Your task to perform on an android device: move an email to a new category in the gmail app Image 0: 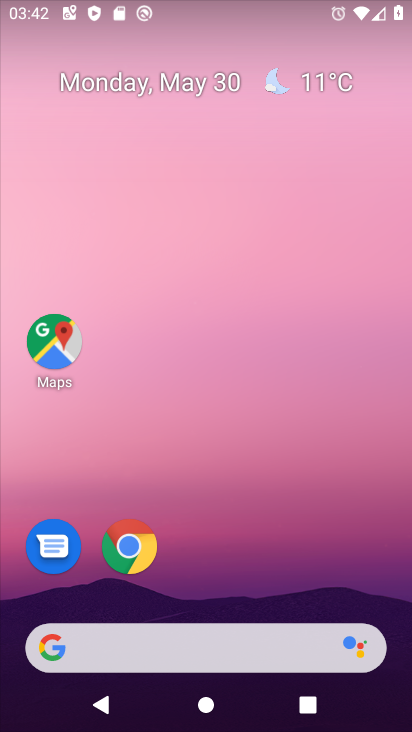
Step 0: press home button
Your task to perform on an android device: move an email to a new category in the gmail app Image 1: 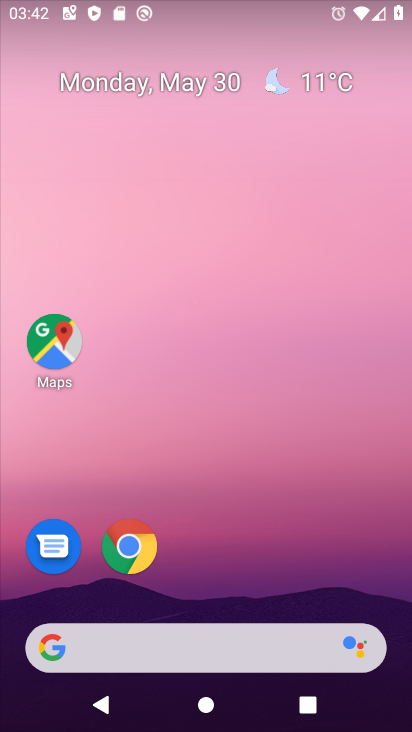
Step 1: drag from (208, 604) to (238, 49)
Your task to perform on an android device: move an email to a new category in the gmail app Image 2: 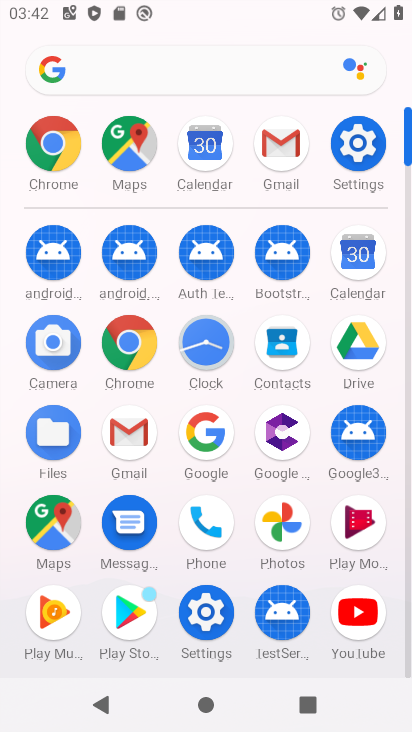
Step 2: click (277, 141)
Your task to perform on an android device: move an email to a new category in the gmail app Image 3: 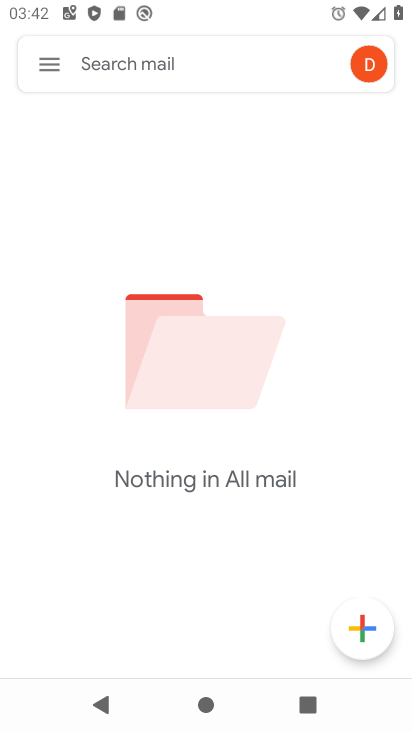
Step 3: task complete